Your task to perform on an android device: manage bookmarks in the chrome app Image 0: 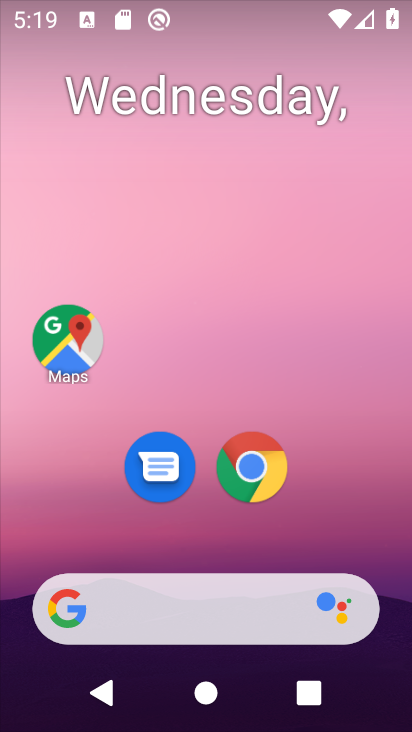
Step 0: drag from (331, 532) to (242, 76)
Your task to perform on an android device: manage bookmarks in the chrome app Image 1: 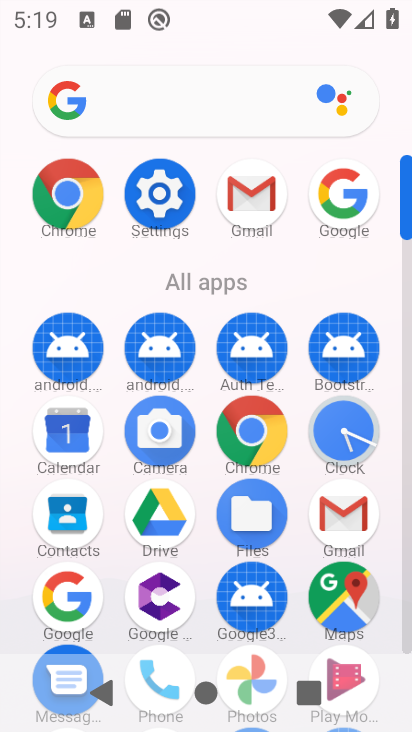
Step 1: click (259, 443)
Your task to perform on an android device: manage bookmarks in the chrome app Image 2: 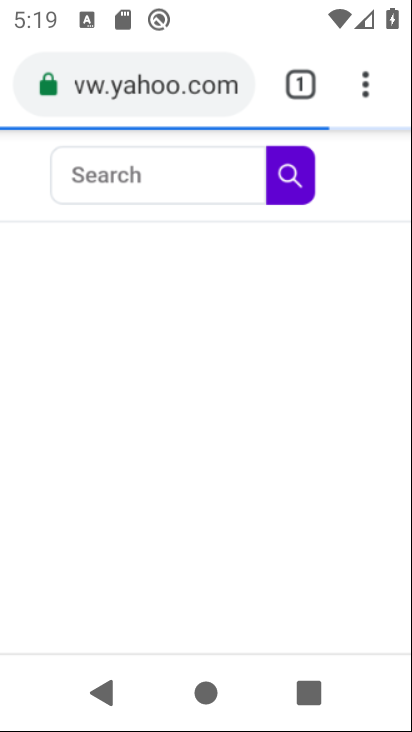
Step 2: click (364, 72)
Your task to perform on an android device: manage bookmarks in the chrome app Image 3: 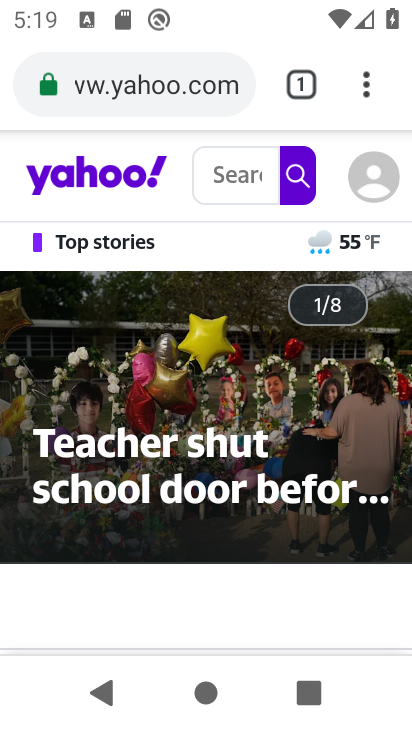
Step 3: click (368, 72)
Your task to perform on an android device: manage bookmarks in the chrome app Image 4: 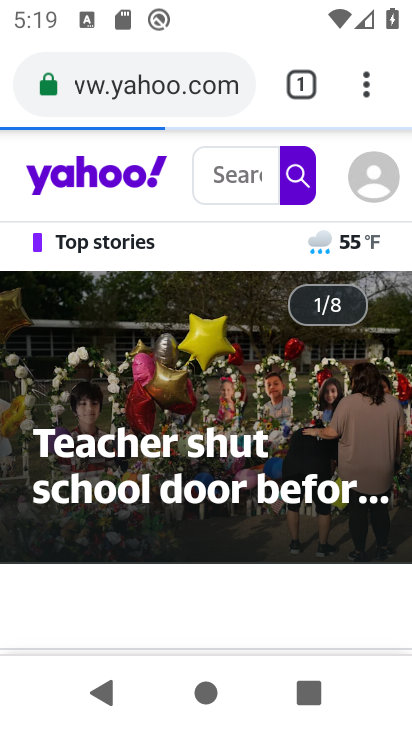
Step 4: click (368, 87)
Your task to perform on an android device: manage bookmarks in the chrome app Image 5: 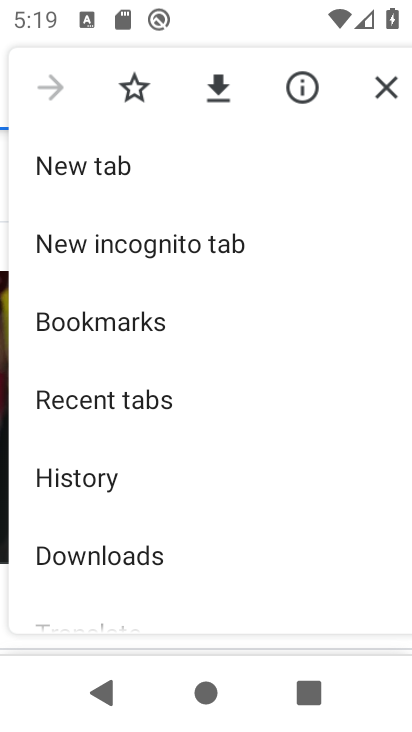
Step 5: click (167, 324)
Your task to perform on an android device: manage bookmarks in the chrome app Image 6: 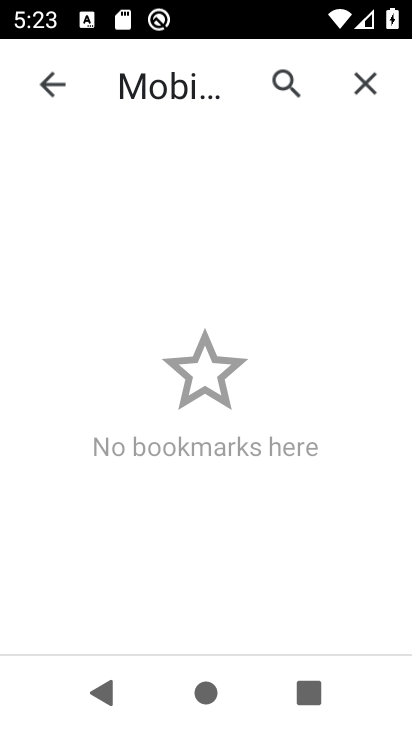
Step 6: task complete